Your task to perform on an android device: create a new album in the google photos Image 0: 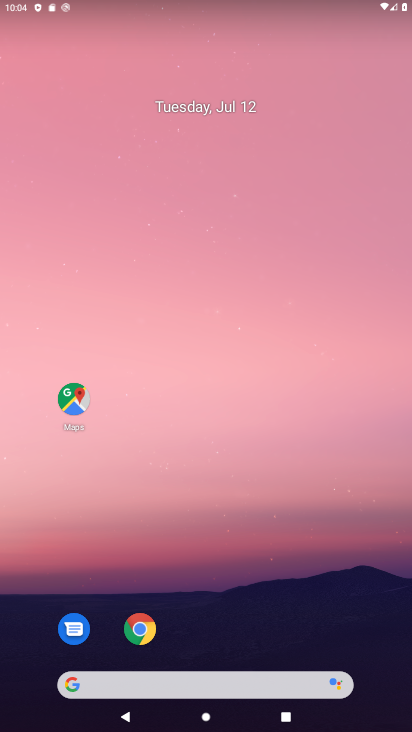
Step 0: drag from (290, 627) to (244, 144)
Your task to perform on an android device: create a new album in the google photos Image 1: 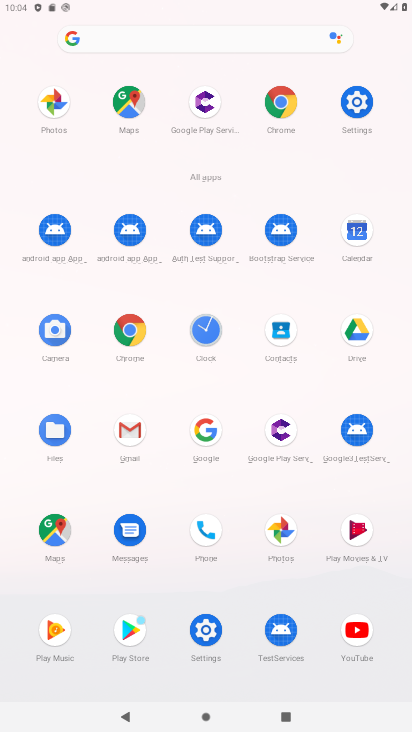
Step 1: click (290, 527)
Your task to perform on an android device: create a new album in the google photos Image 2: 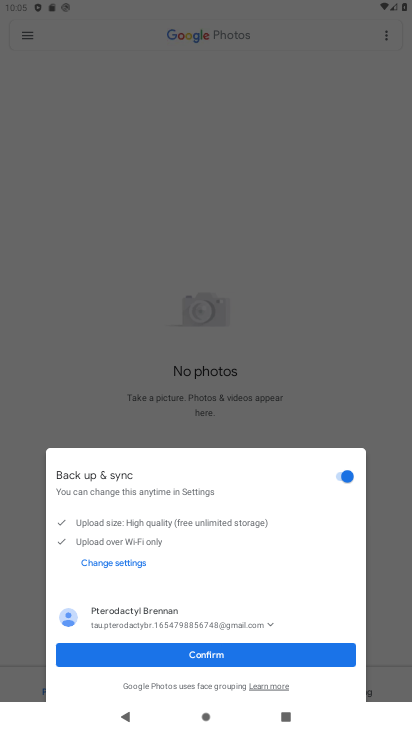
Step 2: click (279, 652)
Your task to perform on an android device: create a new album in the google photos Image 3: 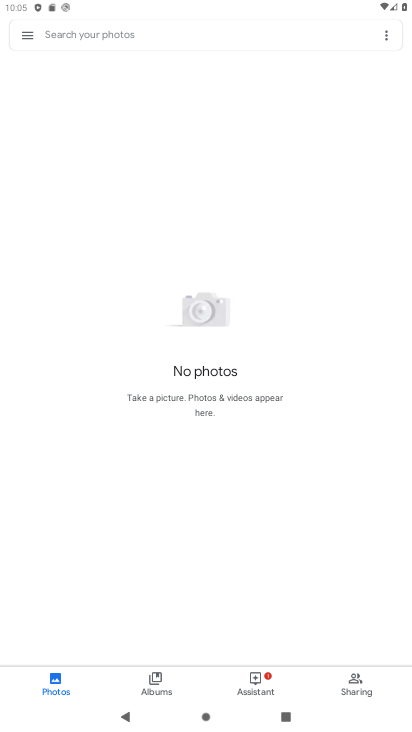
Step 3: task complete